Your task to perform on an android device: turn pop-ups on in chrome Image 0: 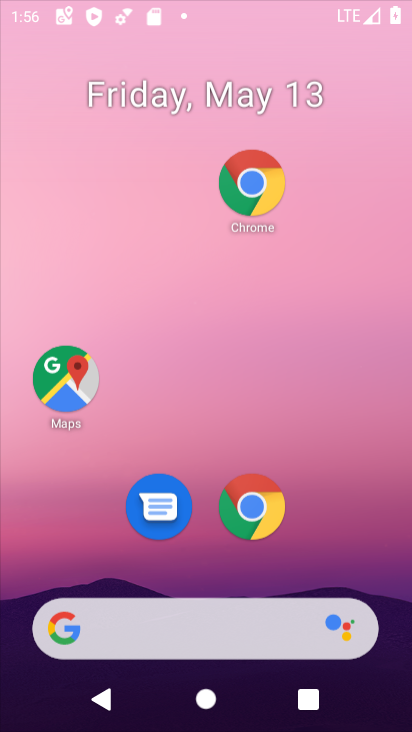
Step 0: click (248, 198)
Your task to perform on an android device: turn pop-ups on in chrome Image 1: 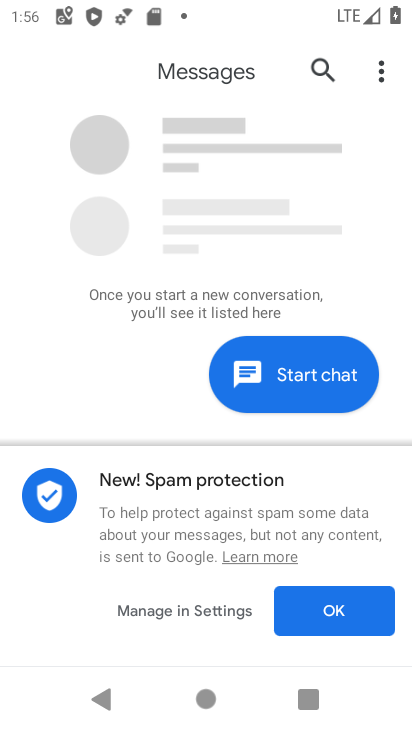
Step 1: press back button
Your task to perform on an android device: turn pop-ups on in chrome Image 2: 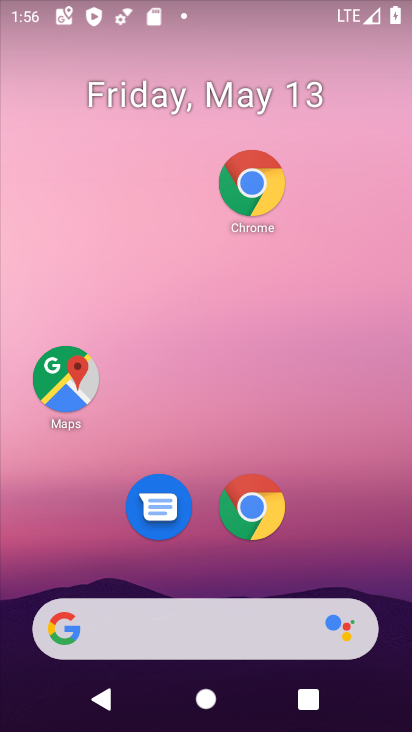
Step 2: click (265, 2)
Your task to perform on an android device: turn pop-ups on in chrome Image 3: 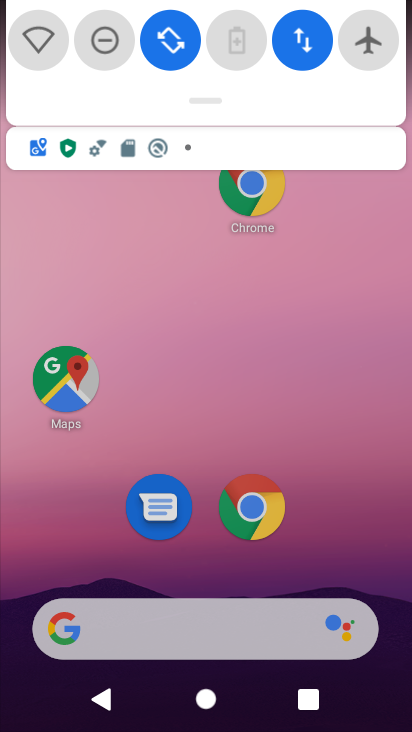
Step 3: drag from (191, 249) to (164, 179)
Your task to perform on an android device: turn pop-ups on in chrome Image 4: 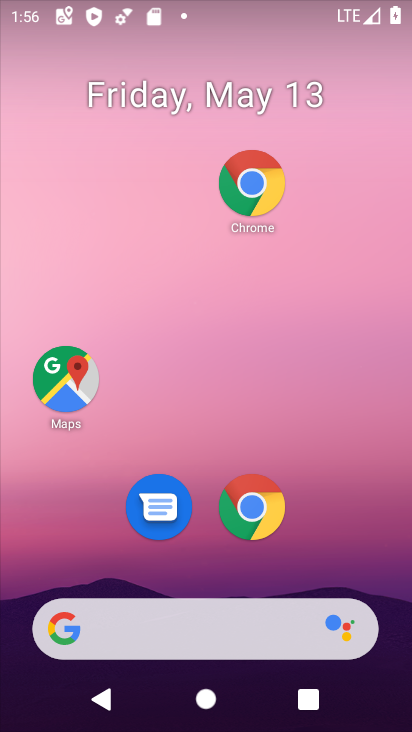
Step 4: drag from (252, 436) to (194, 82)
Your task to perform on an android device: turn pop-ups on in chrome Image 5: 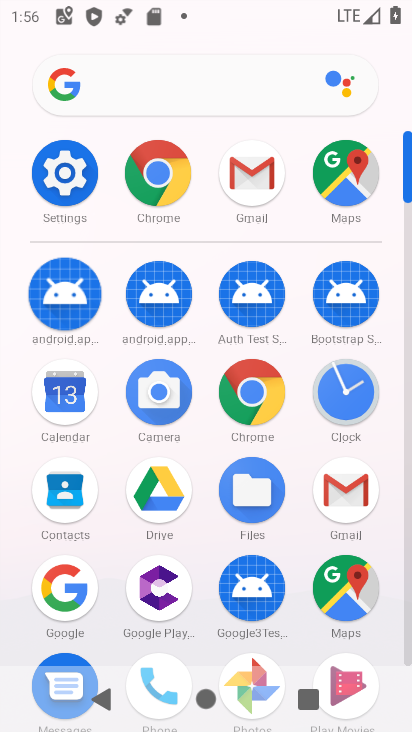
Step 5: drag from (245, 333) to (197, 12)
Your task to perform on an android device: turn pop-ups on in chrome Image 6: 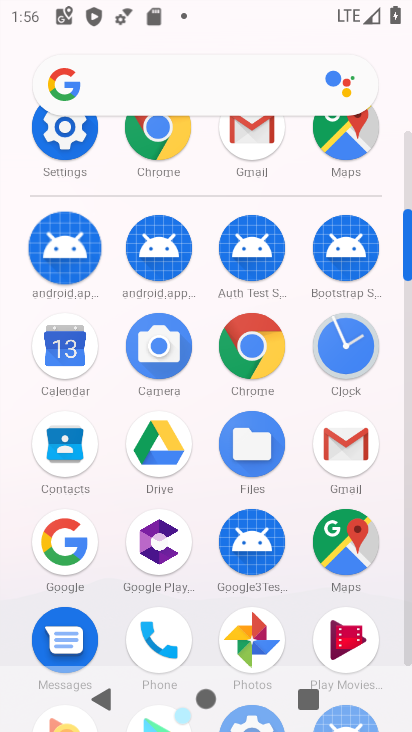
Step 6: click (228, 45)
Your task to perform on an android device: turn pop-ups on in chrome Image 7: 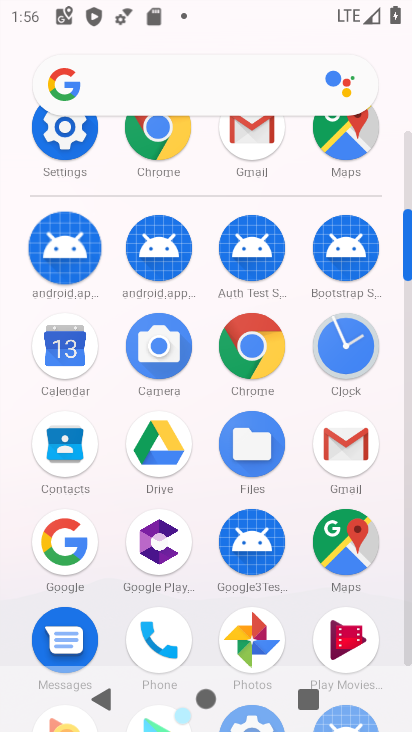
Step 7: click (162, 167)
Your task to perform on an android device: turn pop-ups on in chrome Image 8: 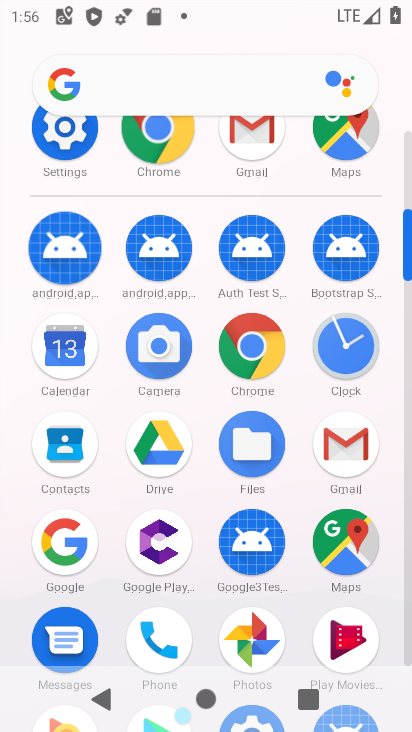
Step 8: click (158, 150)
Your task to perform on an android device: turn pop-ups on in chrome Image 9: 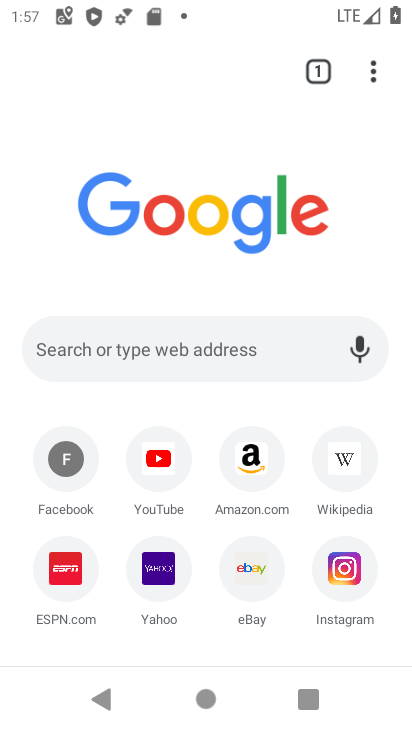
Step 9: click (373, 78)
Your task to perform on an android device: turn pop-ups on in chrome Image 10: 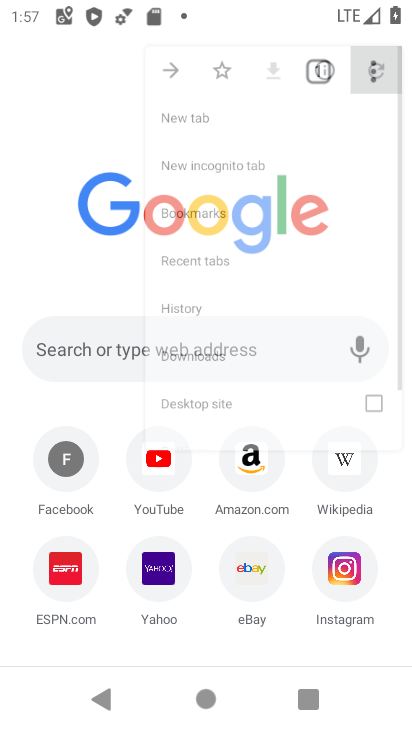
Step 10: drag from (373, 78) to (111, 497)
Your task to perform on an android device: turn pop-ups on in chrome Image 11: 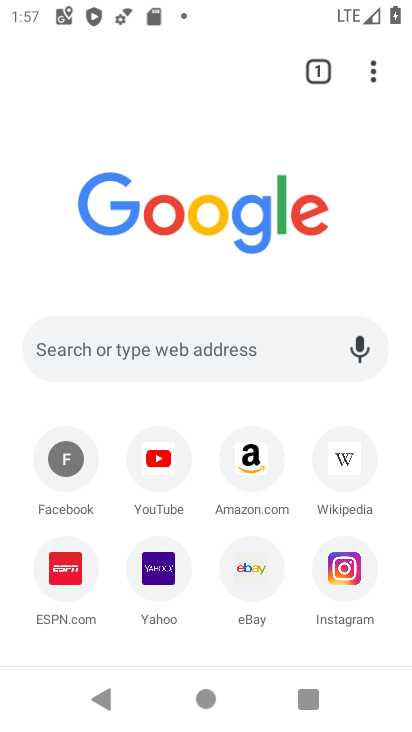
Step 11: click (112, 497)
Your task to perform on an android device: turn pop-ups on in chrome Image 12: 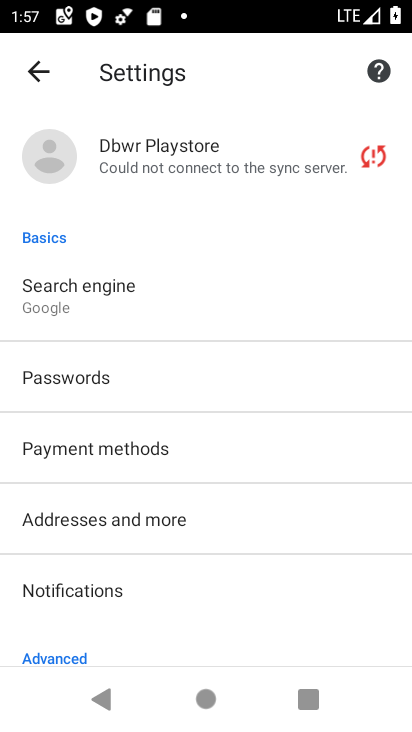
Step 12: drag from (132, 442) to (125, 165)
Your task to perform on an android device: turn pop-ups on in chrome Image 13: 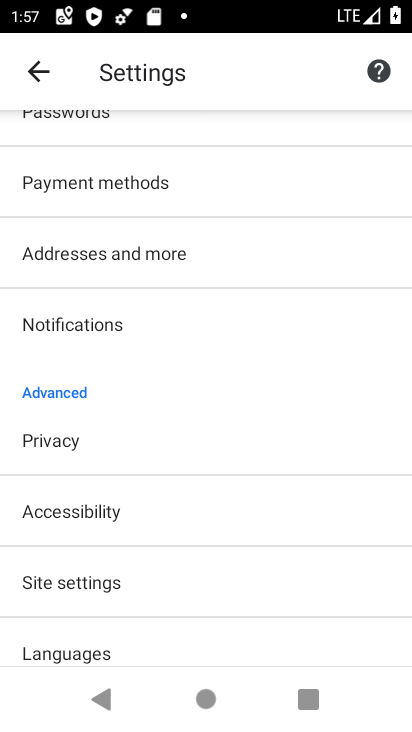
Step 13: drag from (91, 490) to (71, 98)
Your task to perform on an android device: turn pop-ups on in chrome Image 14: 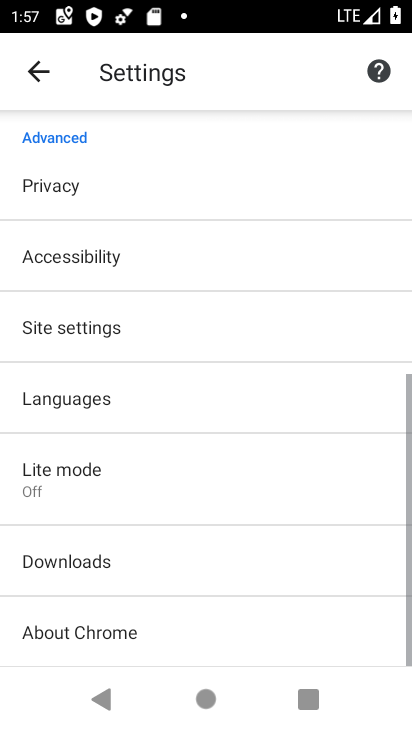
Step 14: drag from (106, 442) to (95, 127)
Your task to perform on an android device: turn pop-ups on in chrome Image 15: 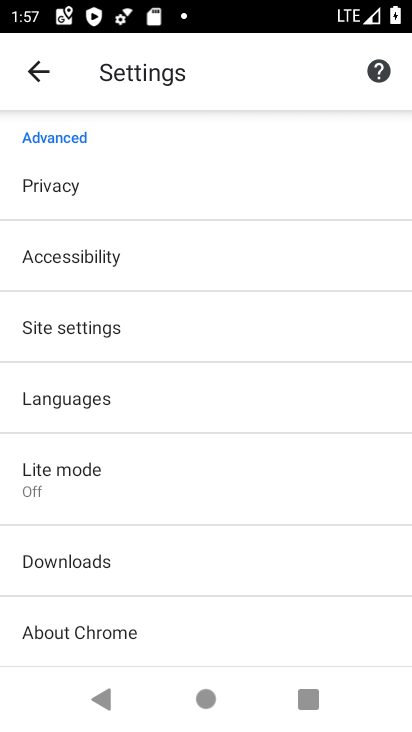
Step 15: drag from (60, 523) to (34, 230)
Your task to perform on an android device: turn pop-ups on in chrome Image 16: 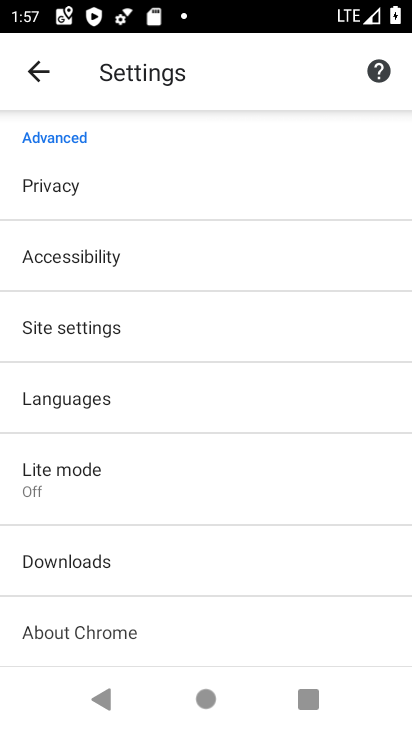
Step 16: drag from (88, 414) to (78, 181)
Your task to perform on an android device: turn pop-ups on in chrome Image 17: 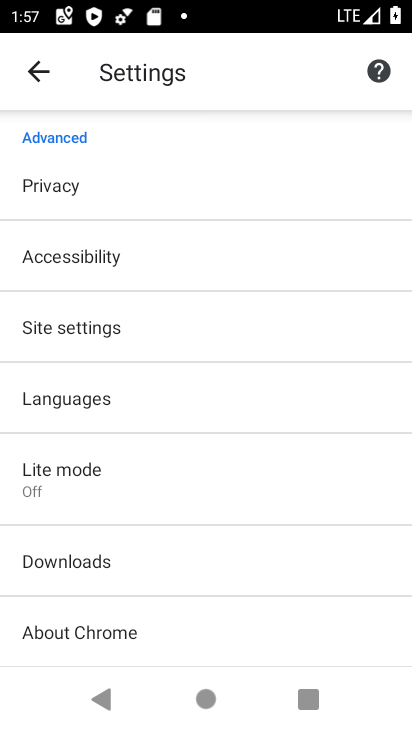
Step 17: click (56, 324)
Your task to perform on an android device: turn pop-ups on in chrome Image 18: 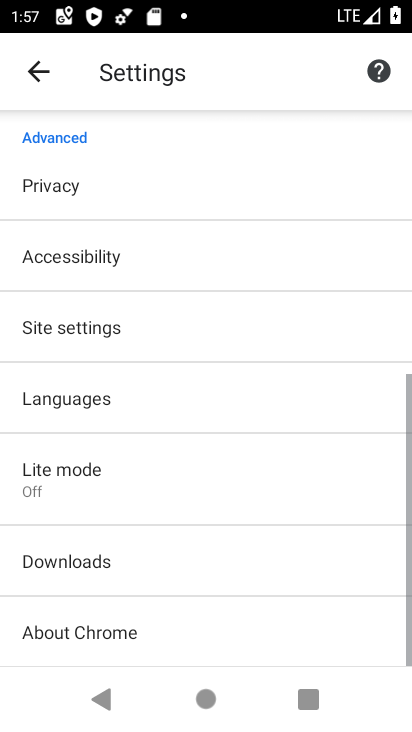
Step 18: click (56, 324)
Your task to perform on an android device: turn pop-ups on in chrome Image 19: 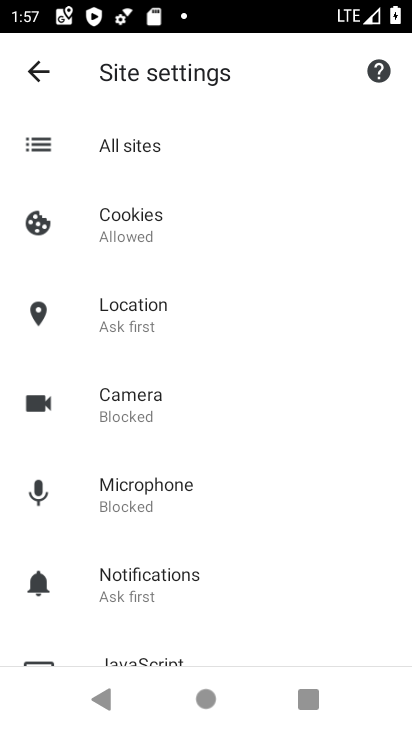
Step 19: drag from (123, 531) to (164, 122)
Your task to perform on an android device: turn pop-ups on in chrome Image 20: 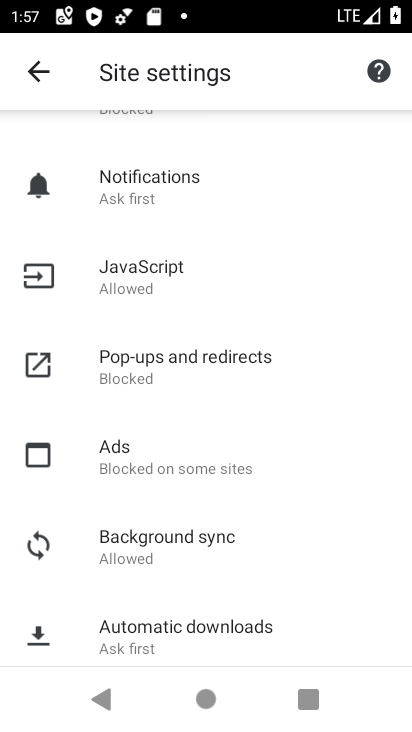
Step 20: drag from (153, 637) to (177, 143)
Your task to perform on an android device: turn pop-ups on in chrome Image 21: 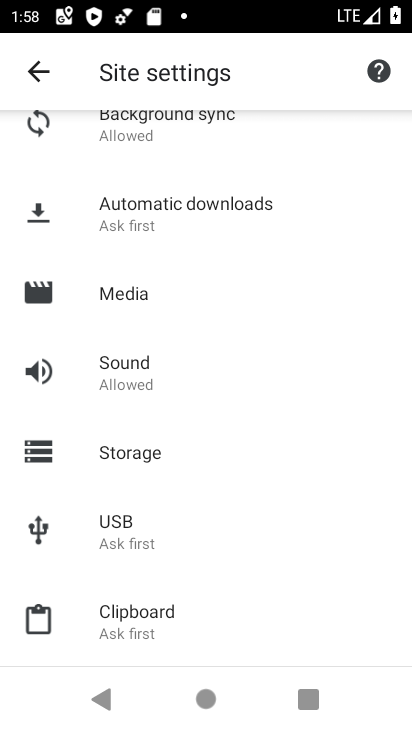
Step 21: click (128, 557)
Your task to perform on an android device: turn pop-ups on in chrome Image 22: 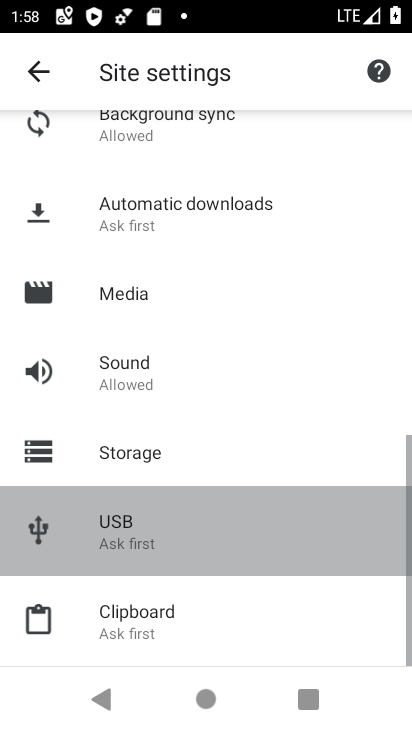
Step 22: drag from (139, 266) to (177, 538)
Your task to perform on an android device: turn pop-ups on in chrome Image 23: 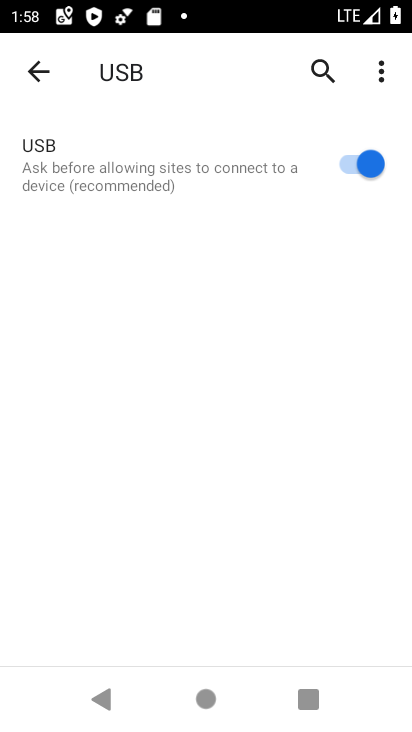
Step 23: click (36, 65)
Your task to perform on an android device: turn pop-ups on in chrome Image 24: 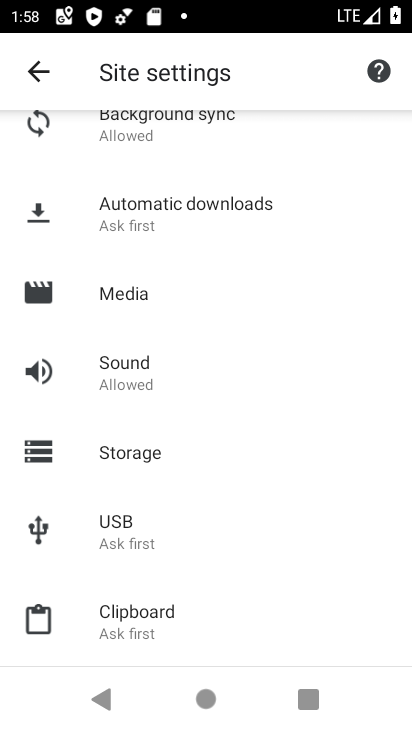
Step 24: drag from (150, 354) to (176, 552)
Your task to perform on an android device: turn pop-ups on in chrome Image 25: 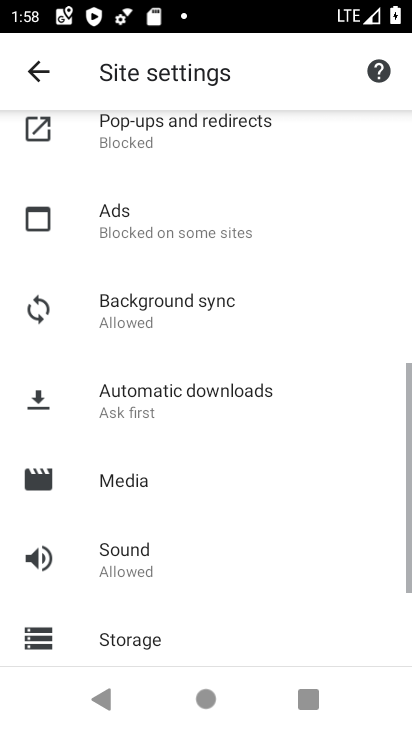
Step 25: drag from (147, 274) to (194, 465)
Your task to perform on an android device: turn pop-ups on in chrome Image 26: 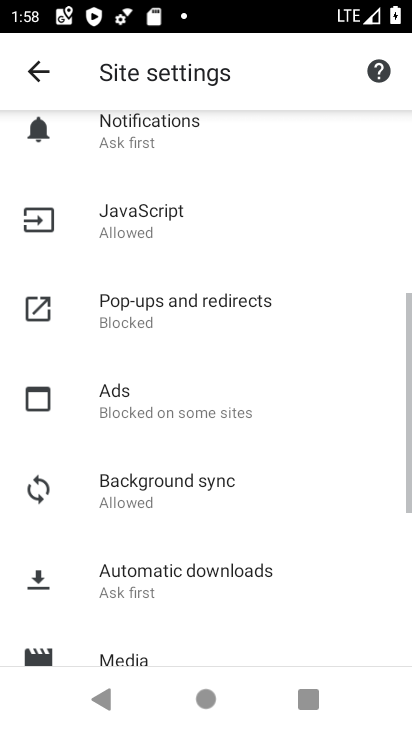
Step 26: click (123, 294)
Your task to perform on an android device: turn pop-ups on in chrome Image 27: 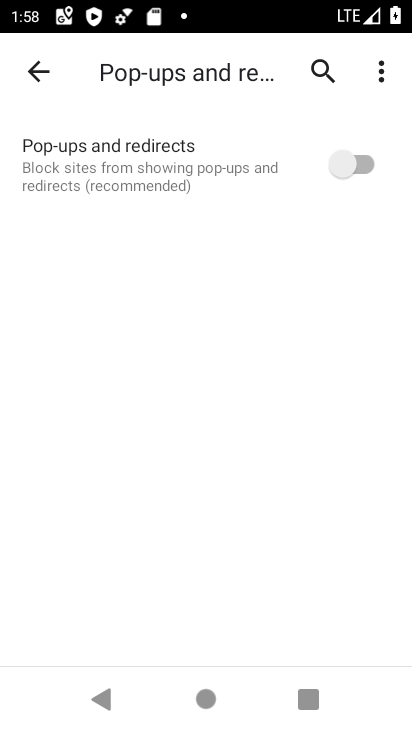
Step 27: click (348, 168)
Your task to perform on an android device: turn pop-ups on in chrome Image 28: 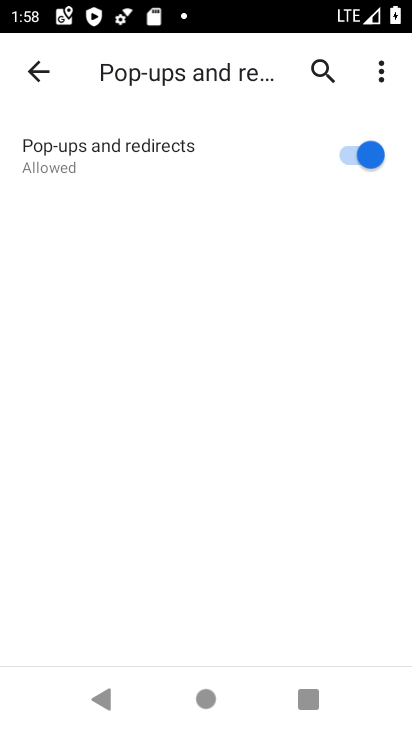
Step 28: task complete